Your task to perform on an android device: Show me productivity apps on the Play Store Image 0: 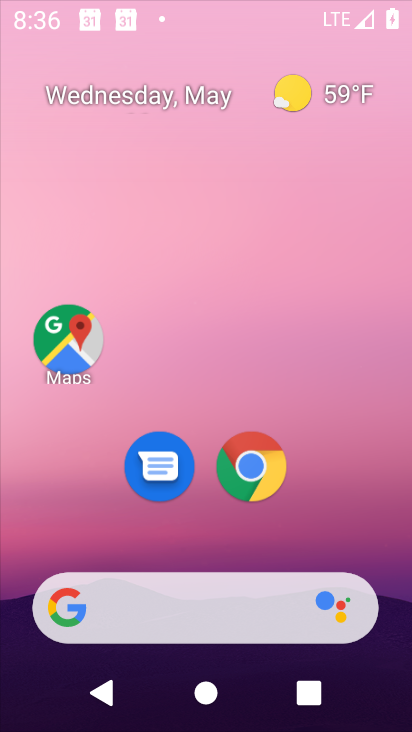
Step 0: drag from (351, 531) to (351, 259)
Your task to perform on an android device: Show me productivity apps on the Play Store Image 1: 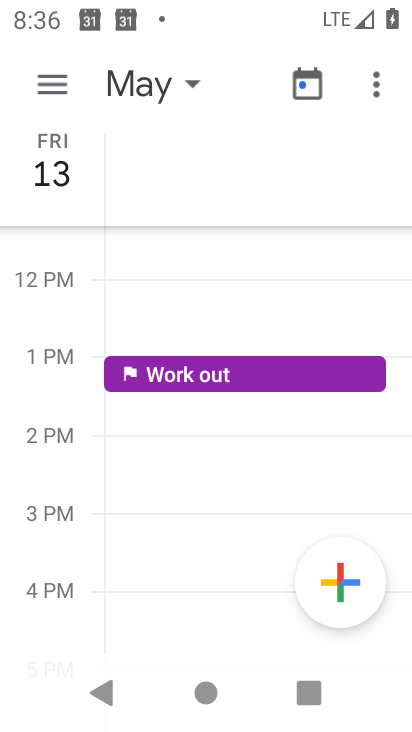
Step 1: press home button
Your task to perform on an android device: Show me productivity apps on the Play Store Image 2: 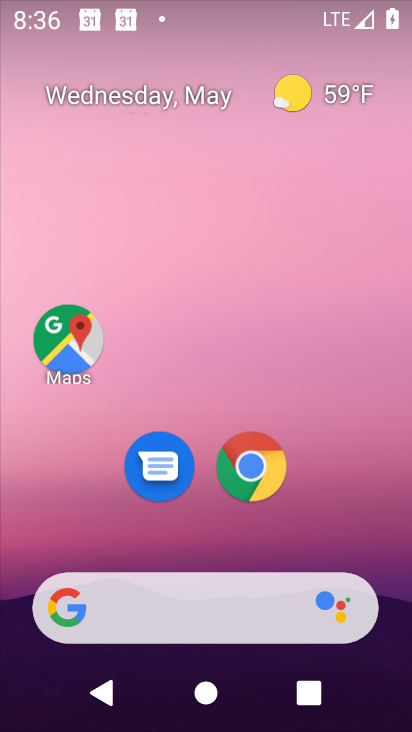
Step 2: drag from (318, 537) to (306, 292)
Your task to perform on an android device: Show me productivity apps on the Play Store Image 3: 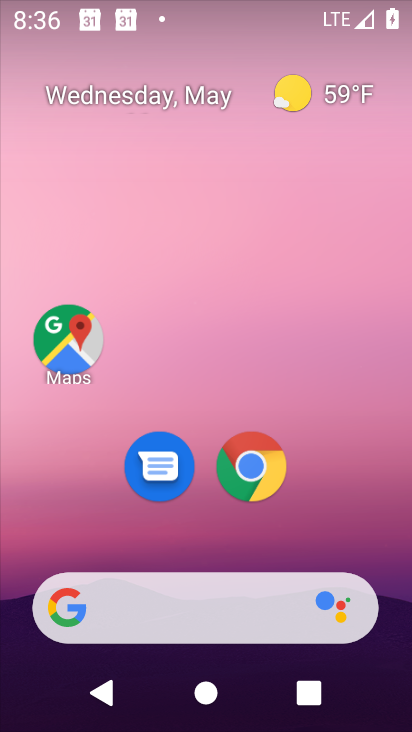
Step 3: drag from (284, 550) to (316, 181)
Your task to perform on an android device: Show me productivity apps on the Play Store Image 4: 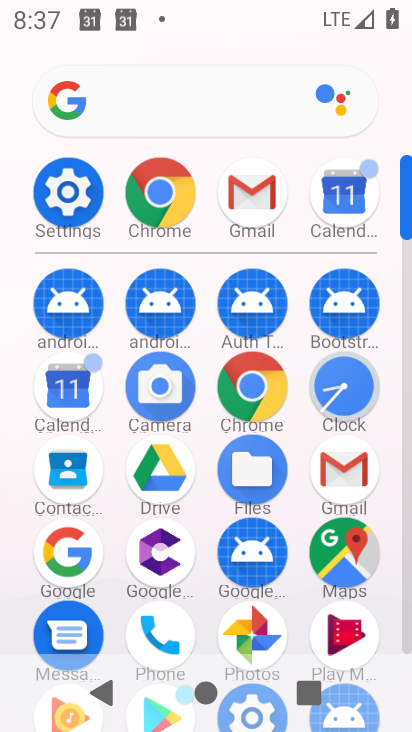
Step 4: drag from (198, 598) to (233, 327)
Your task to perform on an android device: Show me productivity apps on the Play Store Image 5: 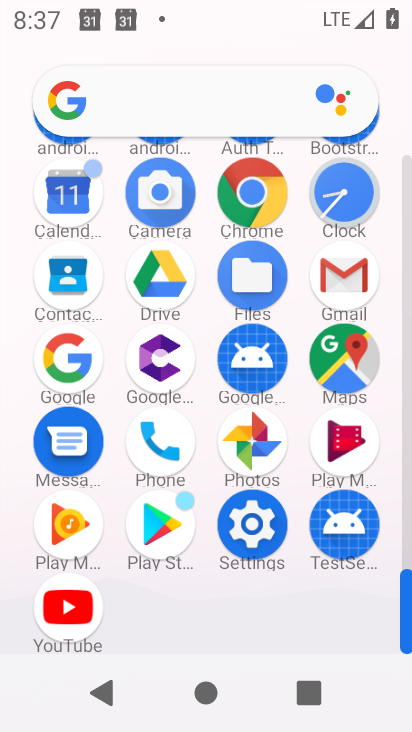
Step 5: click (158, 519)
Your task to perform on an android device: Show me productivity apps on the Play Store Image 6: 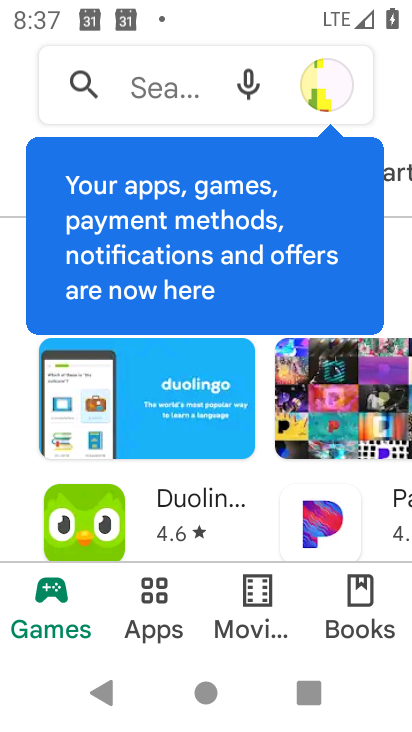
Step 6: click (140, 594)
Your task to perform on an android device: Show me productivity apps on the Play Store Image 7: 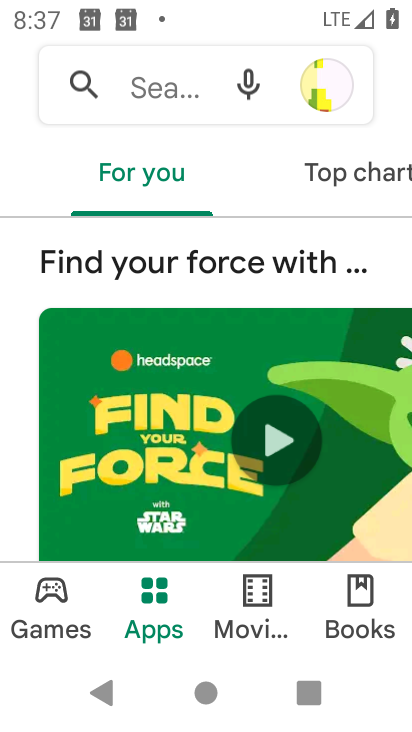
Step 7: drag from (228, 443) to (223, 109)
Your task to perform on an android device: Show me productivity apps on the Play Store Image 8: 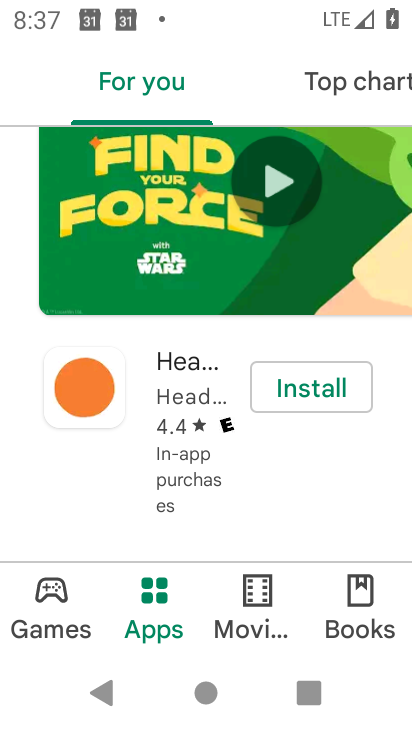
Step 8: click (54, 605)
Your task to perform on an android device: Show me productivity apps on the Play Store Image 9: 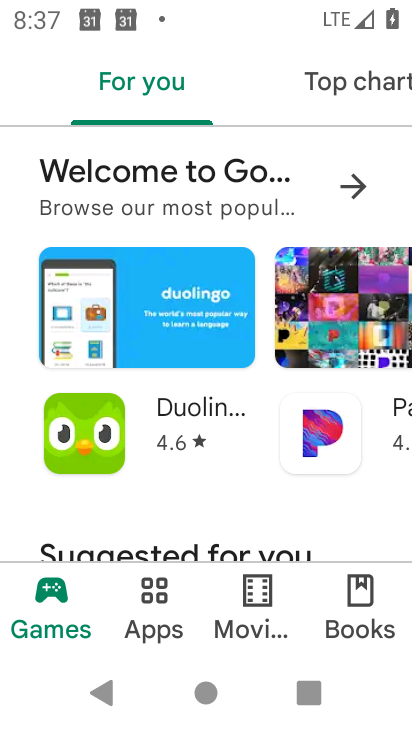
Step 9: click (141, 613)
Your task to perform on an android device: Show me productivity apps on the Play Store Image 10: 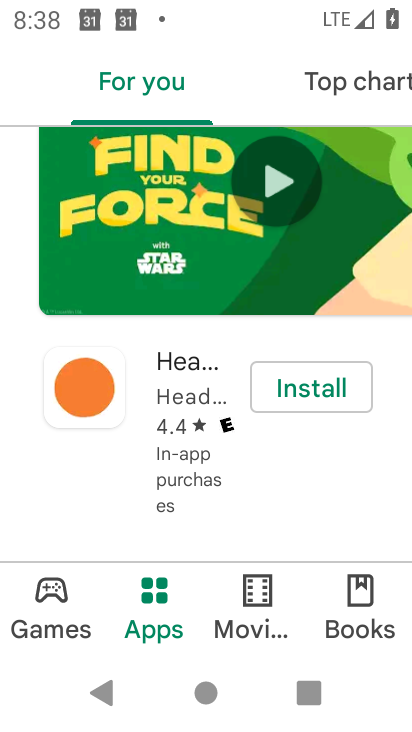
Step 10: task complete